Your task to perform on an android device: see sites visited before in the chrome app Image 0: 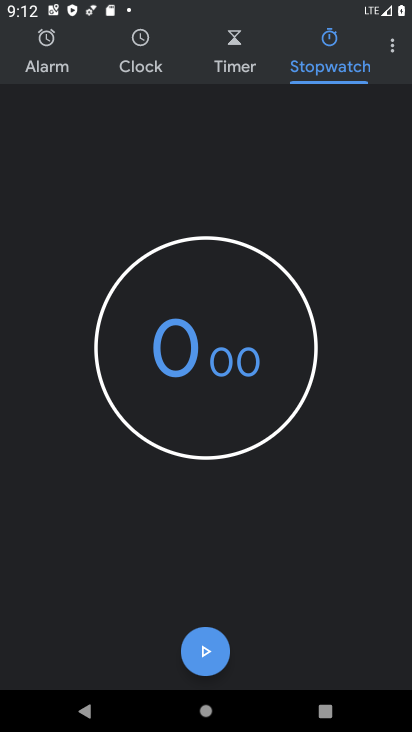
Step 0: press home button
Your task to perform on an android device: see sites visited before in the chrome app Image 1: 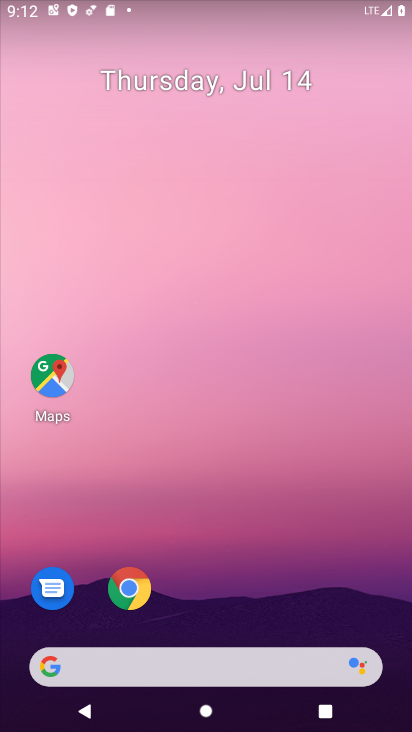
Step 1: drag from (344, 523) to (224, 39)
Your task to perform on an android device: see sites visited before in the chrome app Image 2: 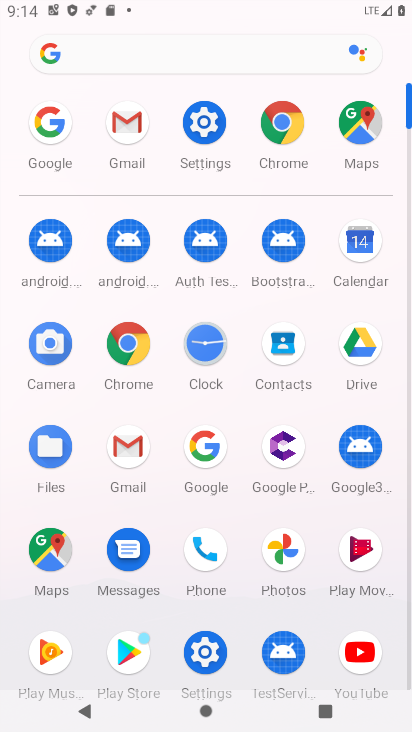
Step 2: click (134, 339)
Your task to perform on an android device: see sites visited before in the chrome app Image 3: 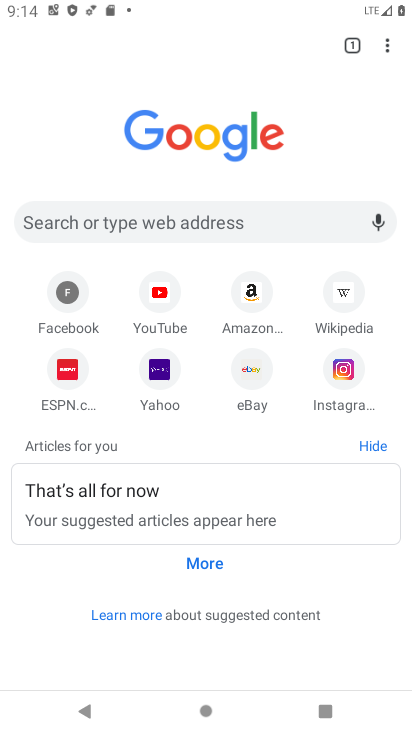
Step 3: task complete